Your task to perform on an android device: toggle priority inbox in the gmail app Image 0: 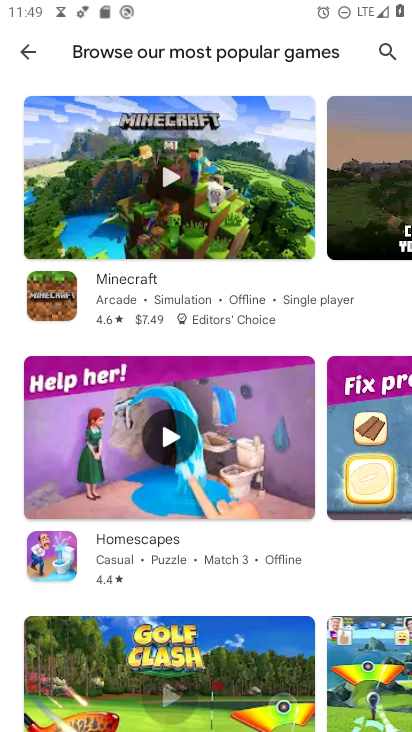
Step 0: press home button
Your task to perform on an android device: toggle priority inbox in the gmail app Image 1: 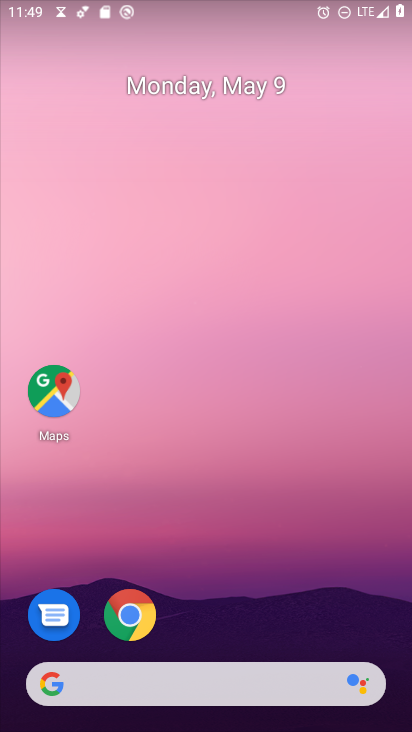
Step 1: drag from (216, 703) to (216, 148)
Your task to perform on an android device: toggle priority inbox in the gmail app Image 2: 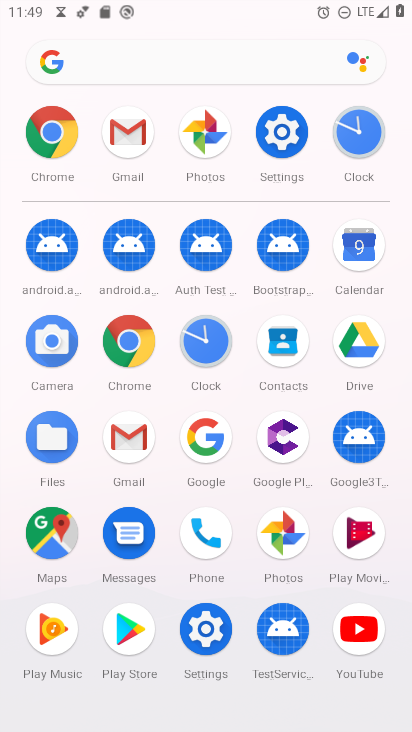
Step 2: click (122, 433)
Your task to perform on an android device: toggle priority inbox in the gmail app Image 3: 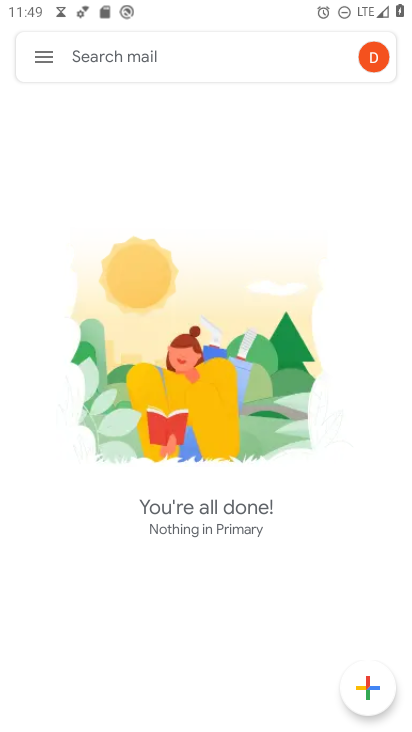
Step 3: click (44, 57)
Your task to perform on an android device: toggle priority inbox in the gmail app Image 4: 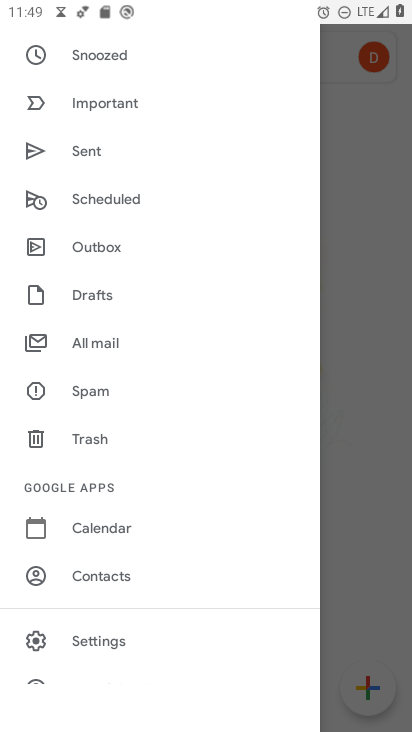
Step 4: click (105, 637)
Your task to perform on an android device: toggle priority inbox in the gmail app Image 5: 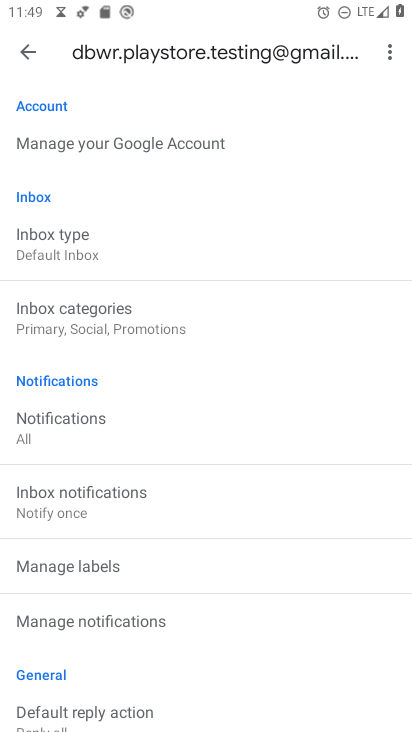
Step 5: click (76, 246)
Your task to perform on an android device: toggle priority inbox in the gmail app Image 6: 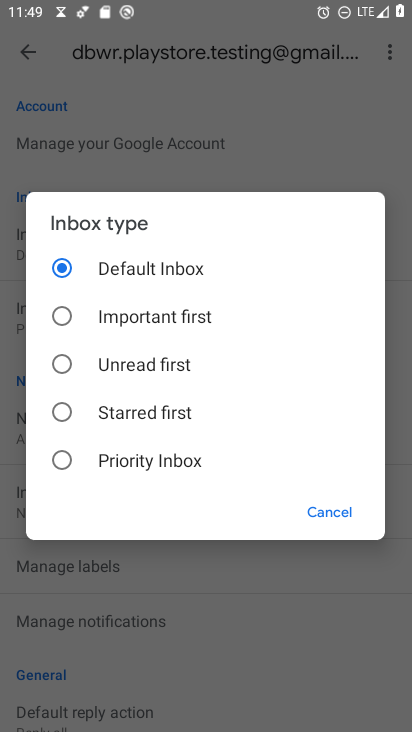
Step 6: click (65, 459)
Your task to perform on an android device: toggle priority inbox in the gmail app Image 7: 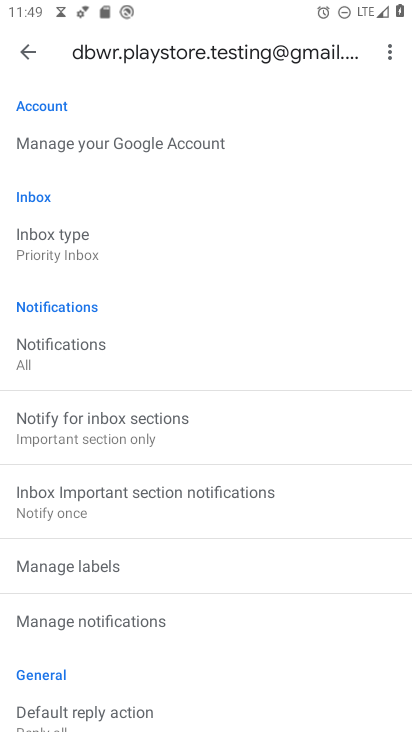
Step 7: task complete